Your task to perform on an android device: see sites visited before in the chrome app Image 0: 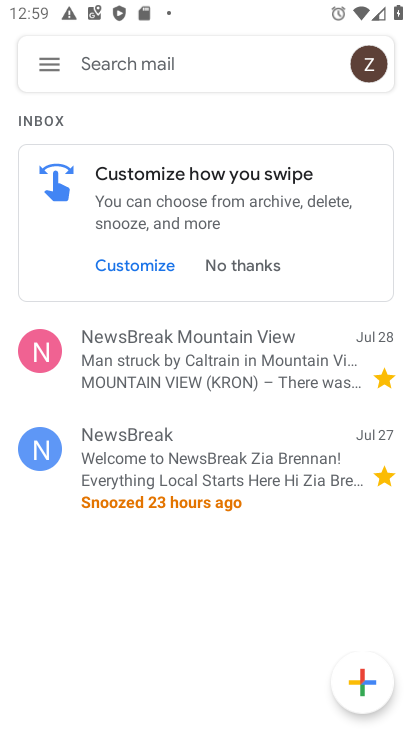
Step 0: press home button
Your task to perform on an android device: see sites visited before in the chrome app Image 1: 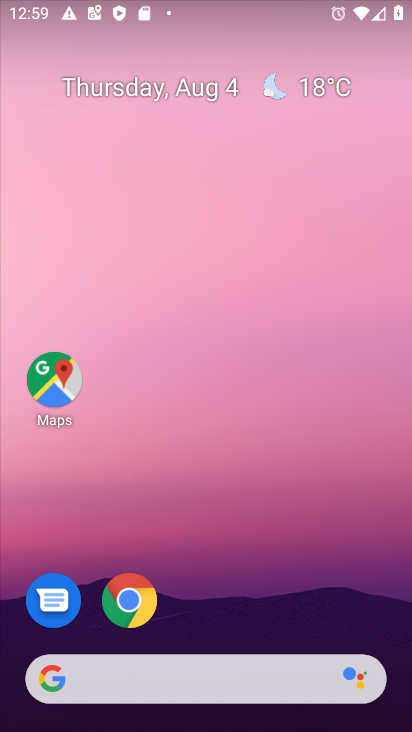
Step 1: click (127, 603)
Your task to perform on an android device: see sites visited before in the chrome app Image 2: 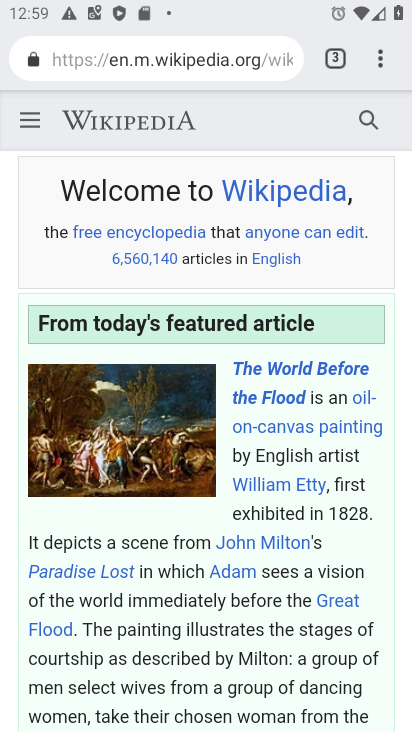
Step 2: task complete